Your task to perform on an android device: turn off javascript in the chrome app Image 0: 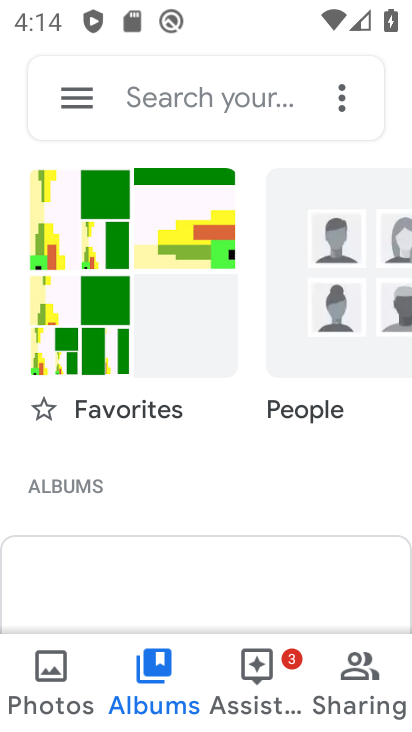
Step 0: press home button
Your task to perform on an android device: turn off javascript in the chrome app Image 1: 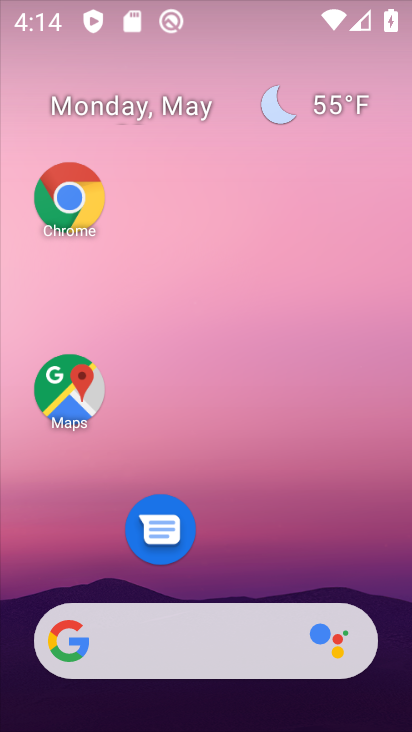
Step 1: drag from (255, 699) to (216, 50)
Your task to perform on an android device: turn off javascript in the chrome app Image 2: 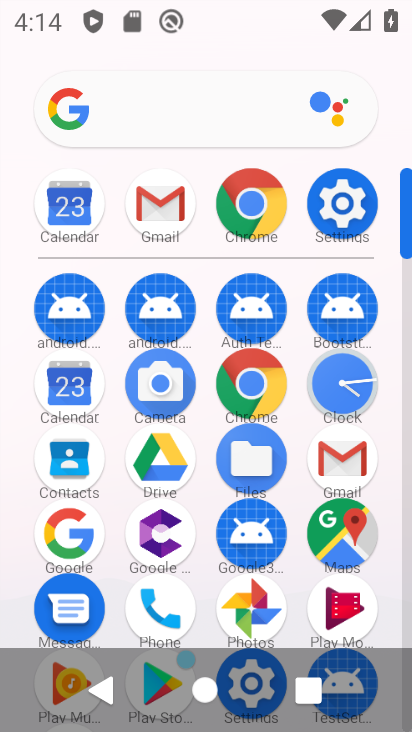
Step 2: click (272, 236)
Your task to perform on an android device: turn off javascript in the chrome app Image 3: 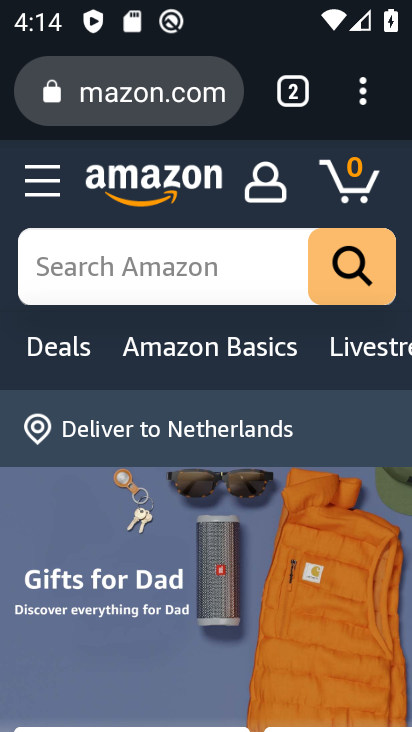
Step 3: click (375, 108)
Your task to perform on an android device: turn off javascript in the chrome app Image 4: 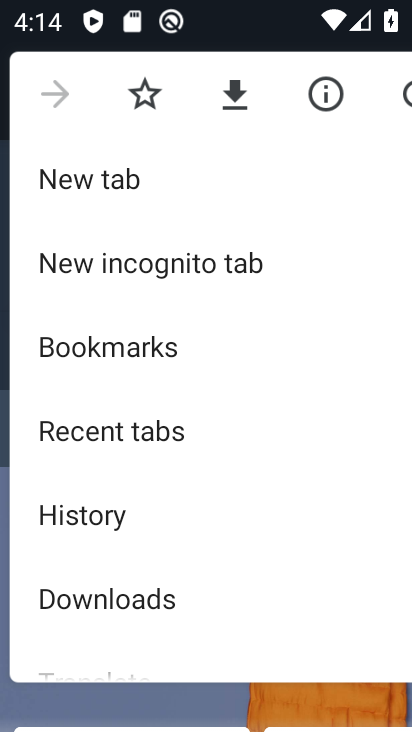
Step 4: drag from (199, 539) to (234, 269)
Your task to perform on an android device: turn off javascript in the chrome app Image 5: 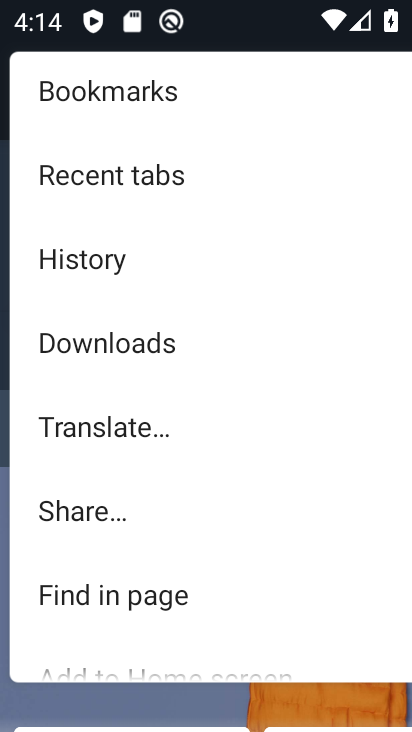
Step 5: drag from (101, 518) to (48, 306)
Your task to perform on an android device: turn off javascript in the chrome app Image 6: 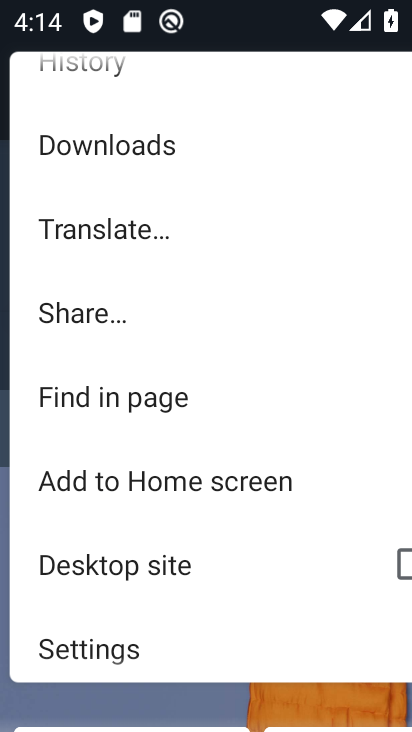
Step 6: click (56, 646)
Your task to perform on an android device: turn off javascript in the chrome app Image 7: 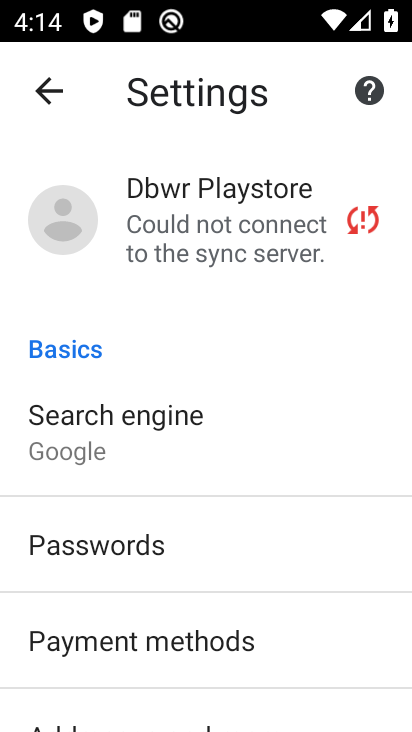
Step 7: drag from (143, 567) to (0, 91)
Your task to perform on an android device: turn off javascript in the chrome app Image 8: 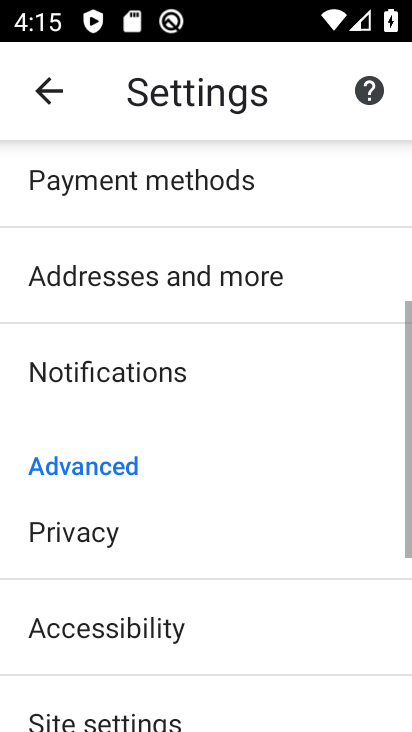
Step 8: drag from (197, 553) to (158, 72)
Your task to perform on an android device: turn off javascript in the chrome app Image 9: 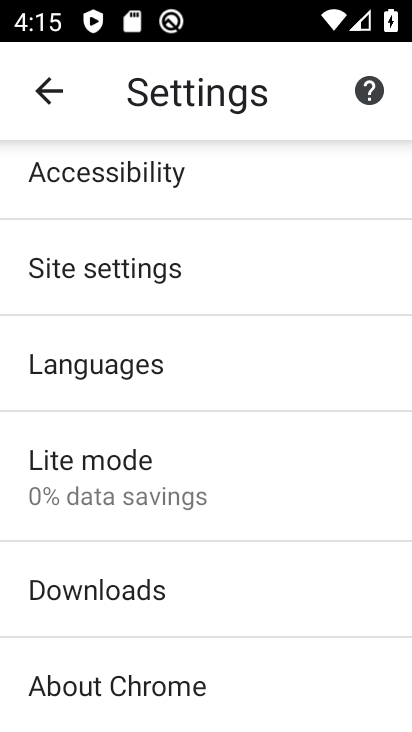
Step 9: click (149, 261)
Your task to perform on an android device: turn off javascript in the chrome app Image 10: 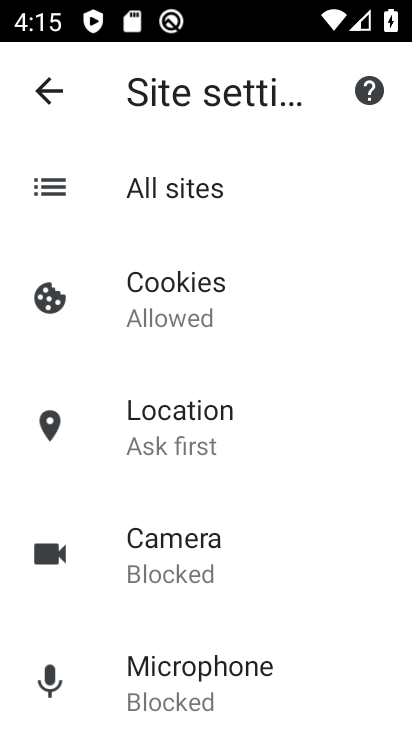
Step 10: drag from (226, 580) to (183, 311)
Your task to perform on an android device: turn off javascript in the chrome app Image 11: 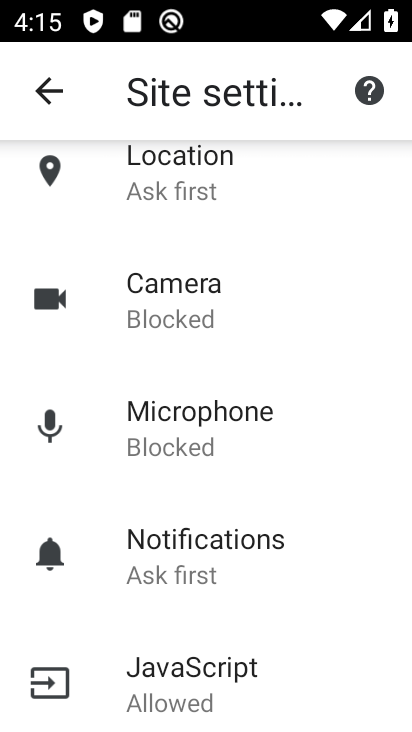
Step 11: click (197, 681)
Your task to perform on an android device: turn off javascript in the chrome app Image 12: 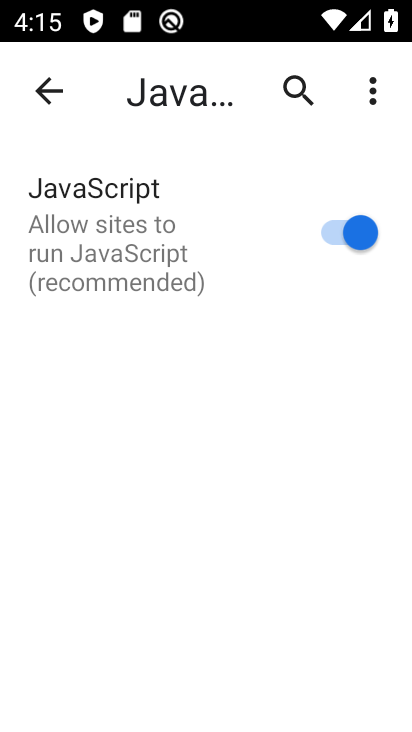
Step 12: click (331, 235)
Your task to perform on an android device: turn off javascript in the chrome app Image 13: 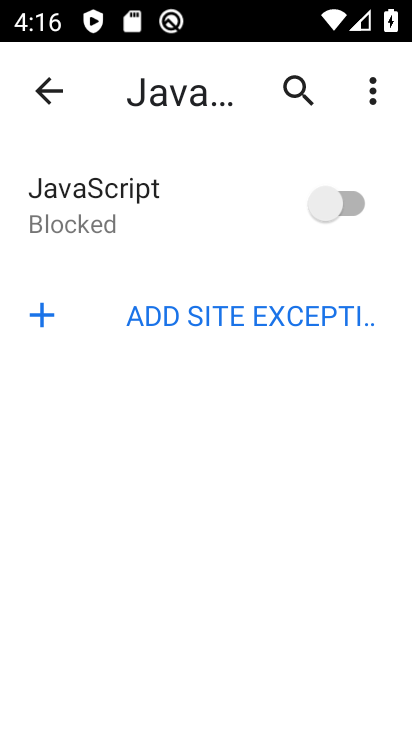
Step 13: task complete